Your task to perform on an android device: turn off picture-in-picture Image 0: 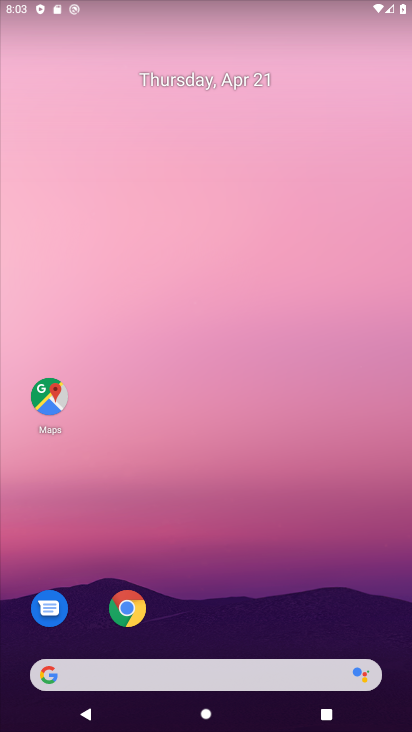
Step 0: click (128, 610)
Your task to perform on an android device: turn off picture-in-picture Image 1: 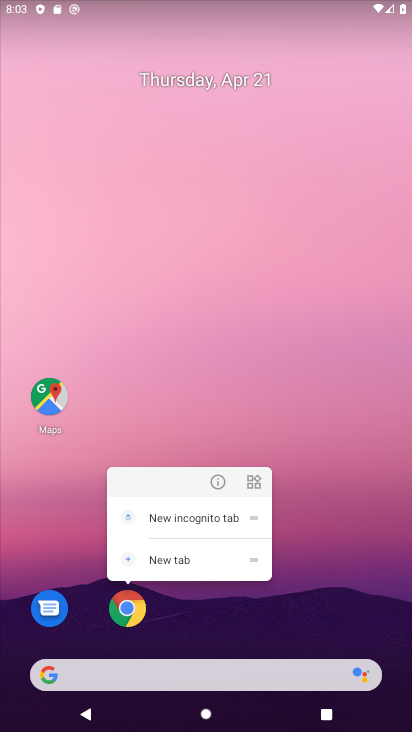
Step 1: click (220, 484)
Your task to perform on an android device: turn off picture-in-picture Image 2: 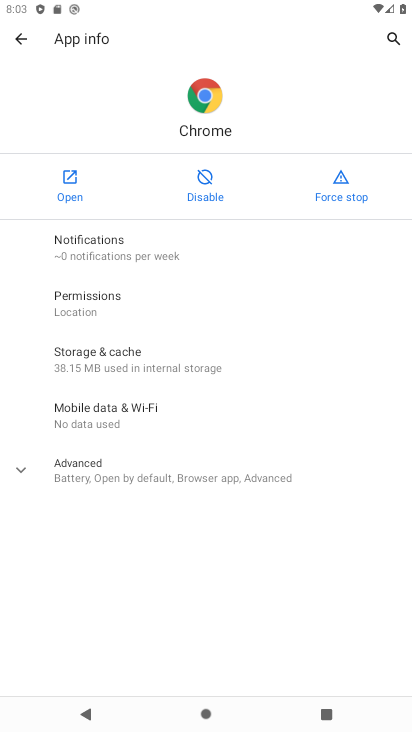
Step 2: click (220, 484)
Your task to perform on an android device: turn off picture-in-picture Image 3: 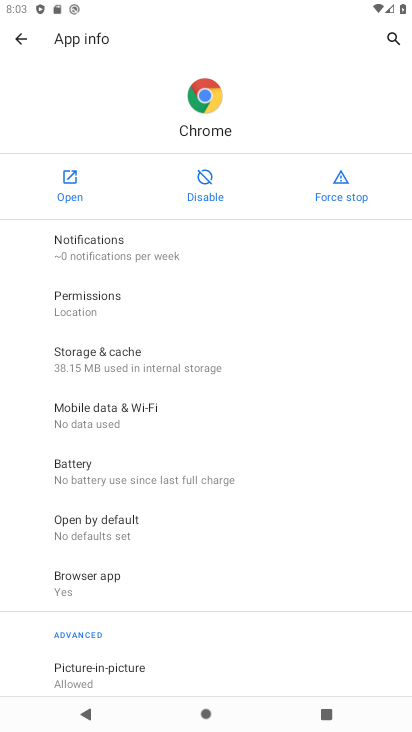
Step 3: click (96, 689)
Your task to perform on an android device: turn off picture-in-picture Image 4: 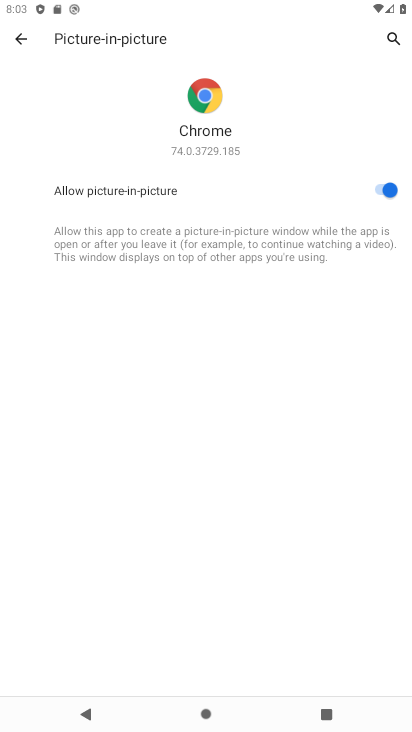
Step 4: click (381, 189)
Your task to perform on an android device: turn off picture-in-picture Image 5: 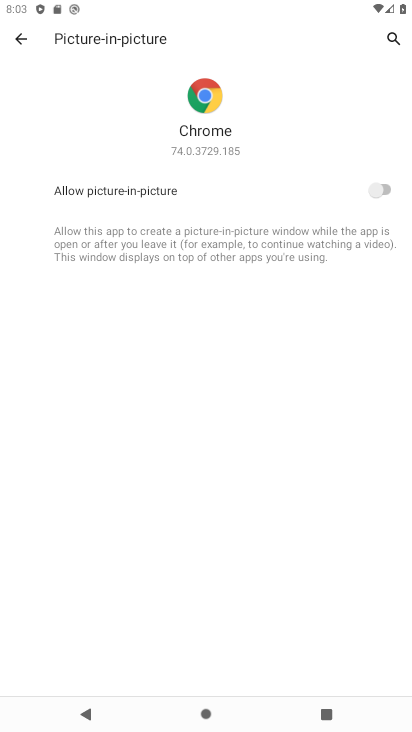
Step 5: task complete